Your task to perform on an android device: Empty the shopping cart on bestbuy. Search for "macbook air" on bestbuy, select the first entry, and add it to the cart. Image 0: 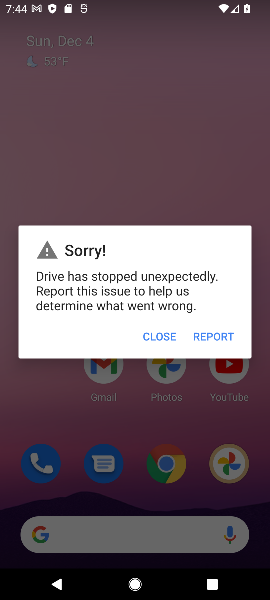
Step 0: press home button
Your task to perform on an android device: Empty the shopping cart on bestbuy. Search for "macbook air" on bestbuy, select the first entry, and add it to the cart. Image 1: 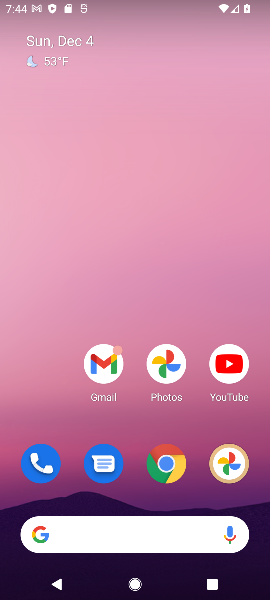
Step 1: click (145, 543)
Your task to perform on an android device: Empty the shopping cart on bestbuy. Search for "macbook air" on bestbuy, select the first entry, and add it to the cart. Image 2: 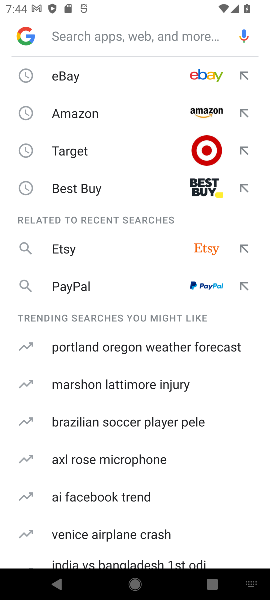
Step 2: type "bestbuy"
Your task to perform on an android device: Empty the shopping cart on bestbuy. Search for "macbook air" on bestbuy, select the first entry, and add it to the cart. Image 3: 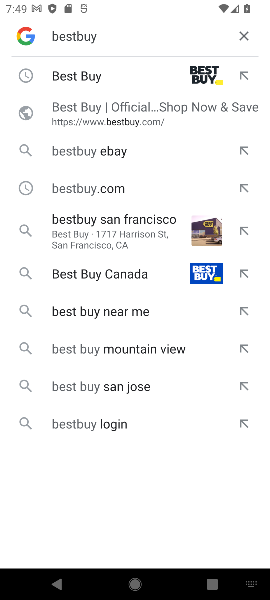
Step 3: click (179, 79)
Your task to perform on an android device: Empty the shopping cart on bestbuy. Search for "macbook air" on bestbuy, select the first entry, and add it to the cart. Image 4: 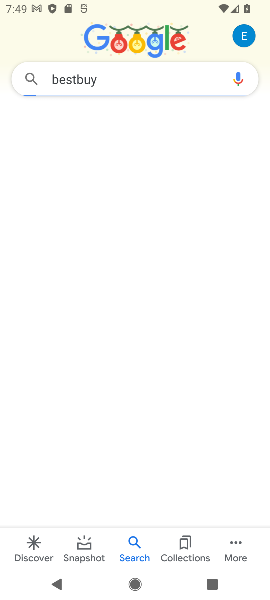
Step 4: task complete